Your task to perform on an android device: Add "razer blade" to the cart on amazon.com, then select checkout. Image 0: 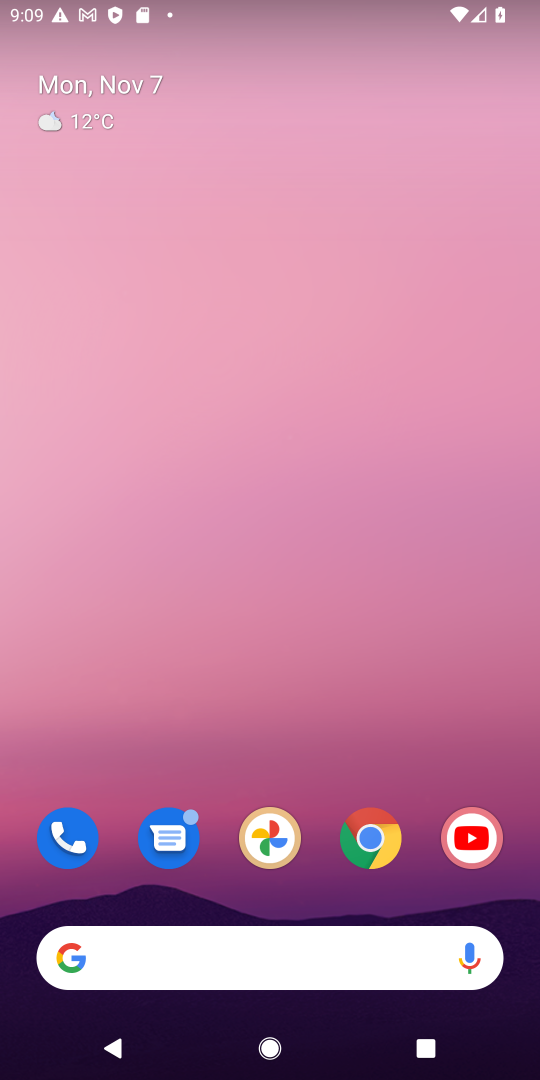
Step 0: click (373, 825)
Your task to perform on an android device: Add "razer blade" to the cart on amazon.com, then select checkout. Image 1: 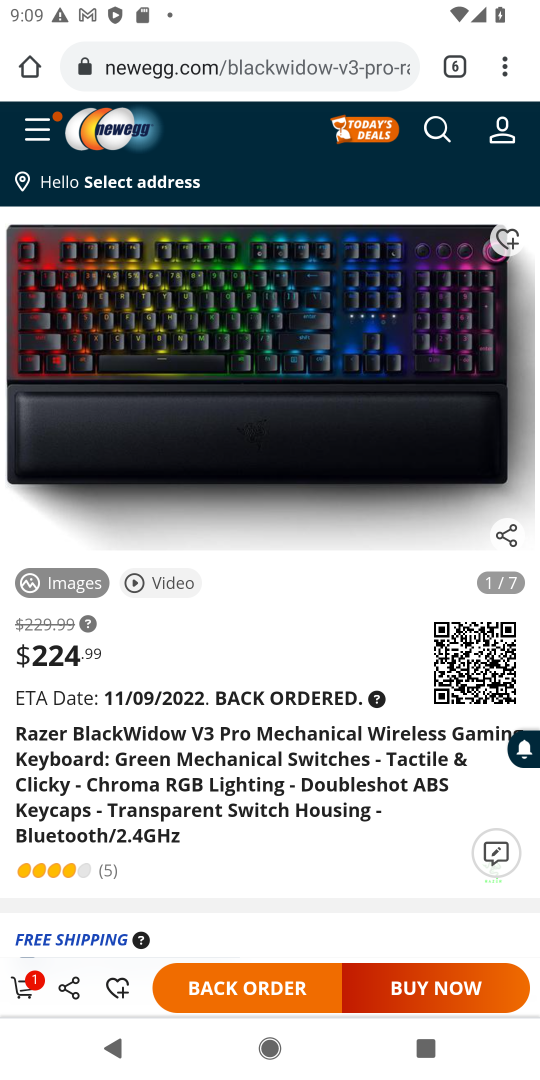
Step 1: task complete